Your task to perform on an android device: turn off notifications settings in the gmail app Image 0: 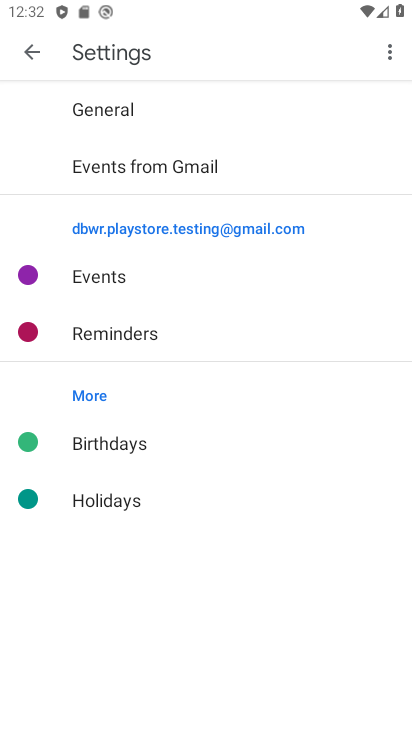
Step 0: press home button
Your task to perform on an android device: turn off notifications settings in the gmail app Image 1: 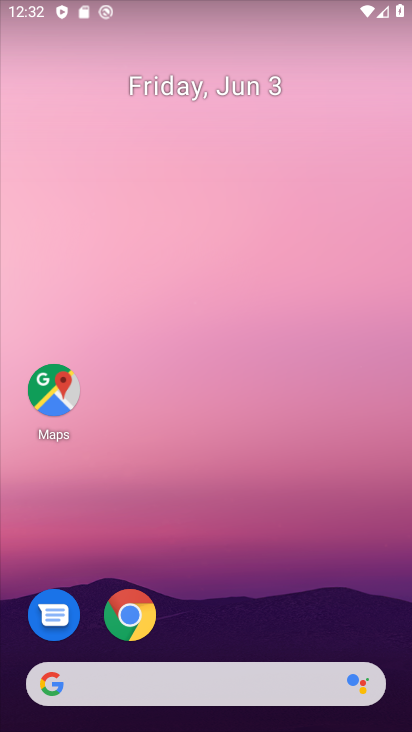
Step 1: drag from (204, 613) to (341, 5)
Your task to perform on an android device: turn off notifications settings in the gmail app Image 2: 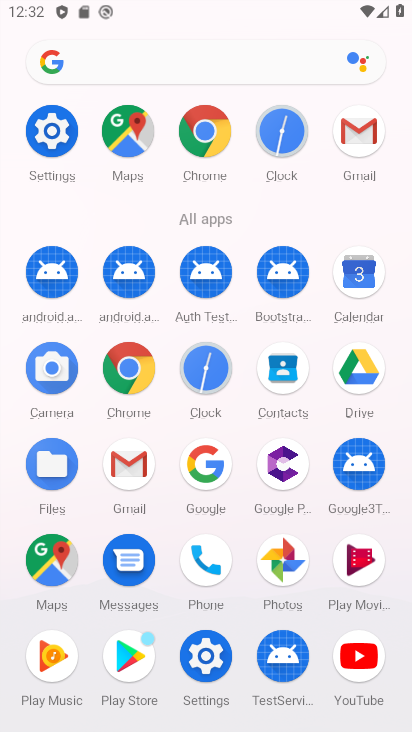
Step 2: click (352, 151)
Your task to perform on an android device: turn off notifications settings in the gmail app Image 3: 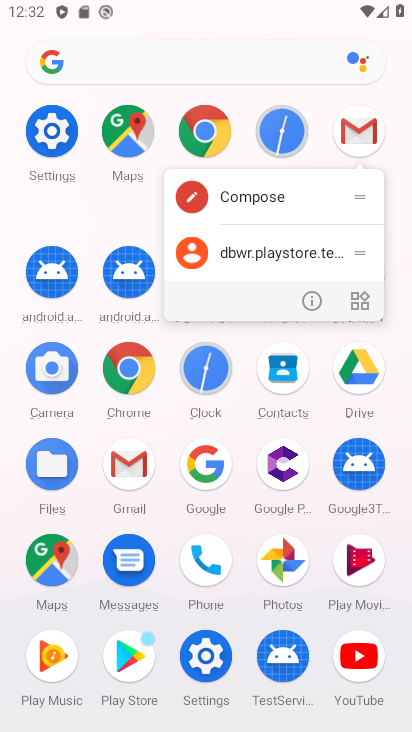
Step 3: click (308, 296)
Your task to perform on an android device: turn off notifications settings in the gmail app Image 4: 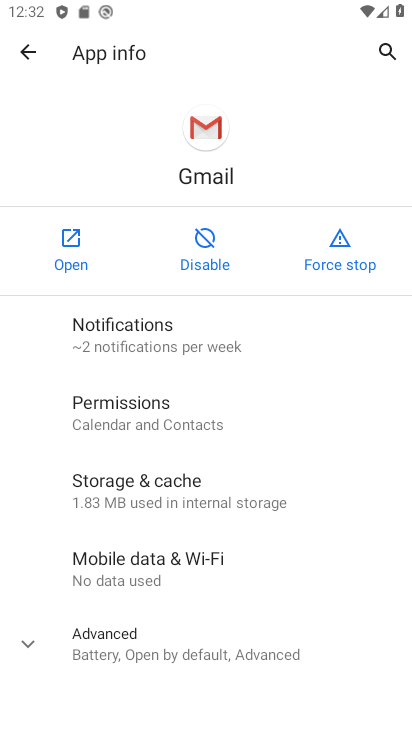
Step 4: click (222, 341)
Your task to perform on an android device: turn off notifications settings in the gmail app Image 5: 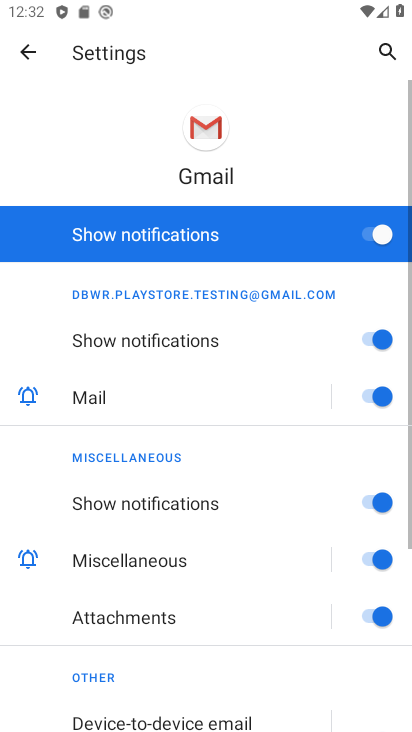
Step 5: click (373, 240)
Your task to perform on an android device: turn off notifications settings in the gmail app Image 6: 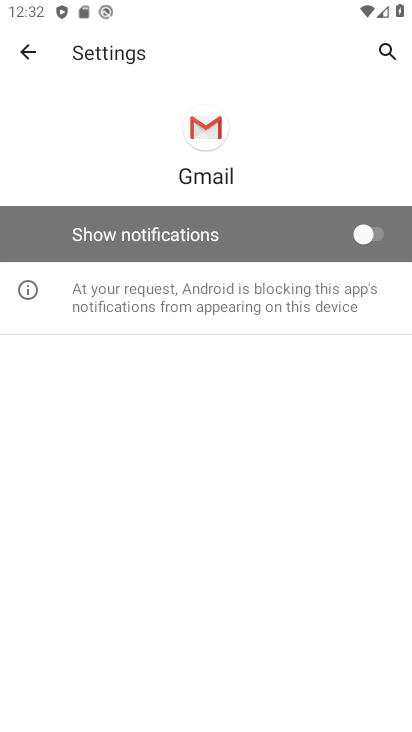
Step 6: task complete